Your task to perform on an android device: Is it going to rain today? Image 0: 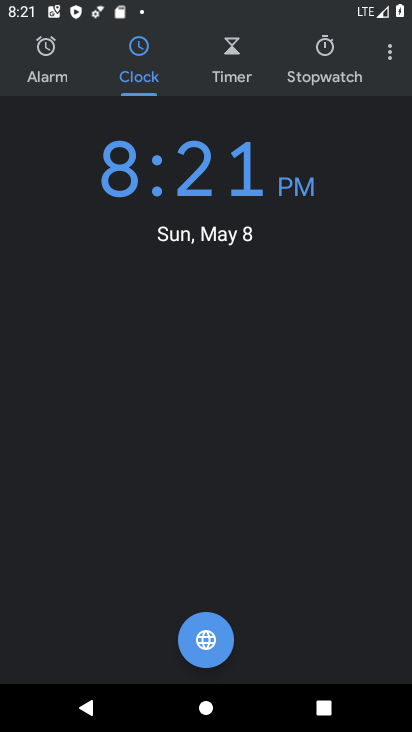
Step 0: press home button
Your task to perform on an android device: Is it going to rain today? Image 1: 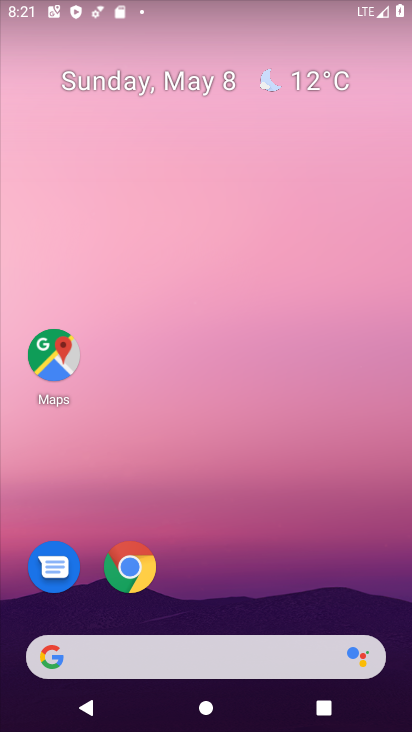
Step 1: click (293, 84)
Your task to perform on an android device: Is it going to rain today? Image 2: 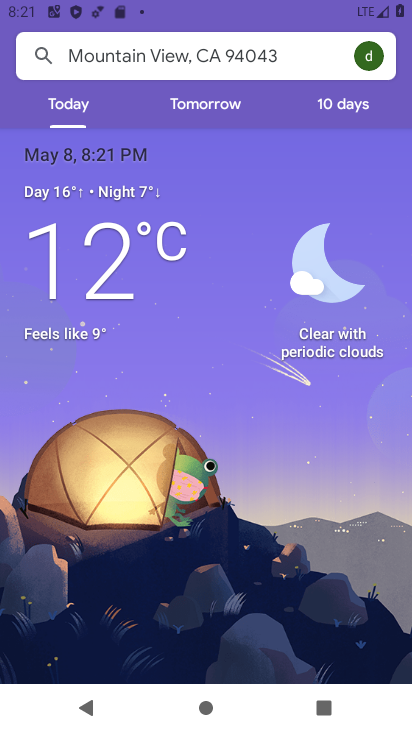
Step 2: task complete